Your task to perform on an android device: Open CNN.com Image 0: 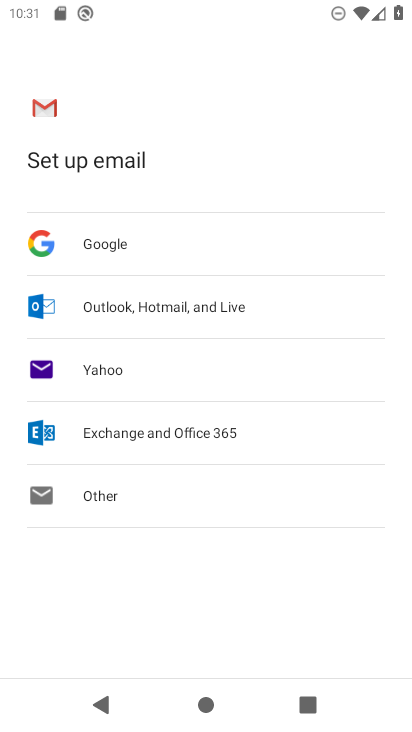
Step 0: press home button
Your task to perform on an android device: Open CNN.com Image 1: 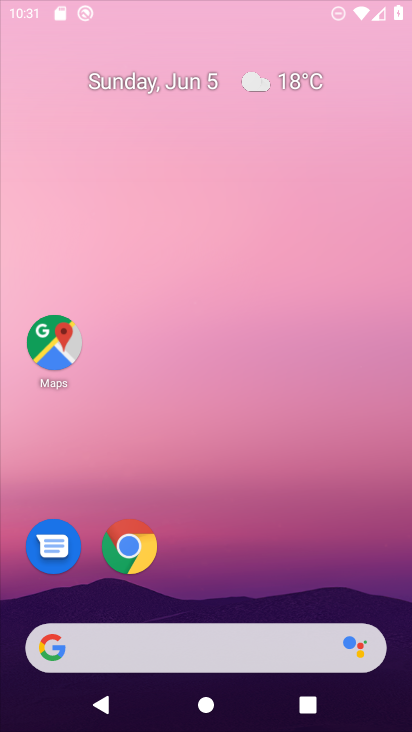
Step 1: drag from (200, 518) to (391, 37)
Your task to perform on an android device: Open CNN.com Image 2: 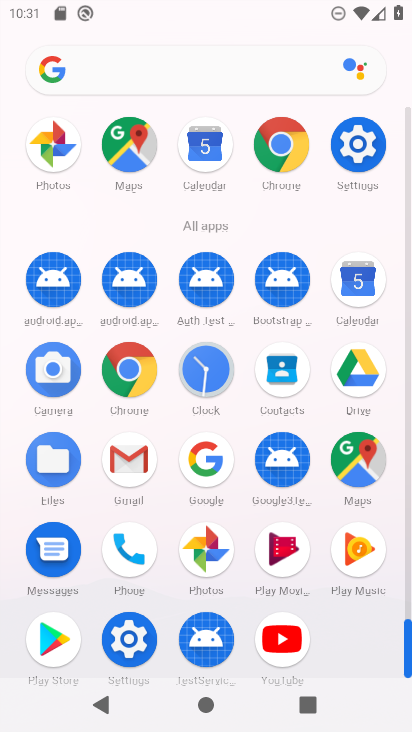
Step 2: click (147, 86)
Your task to perform on an android device: Open CNN.com Image 3: 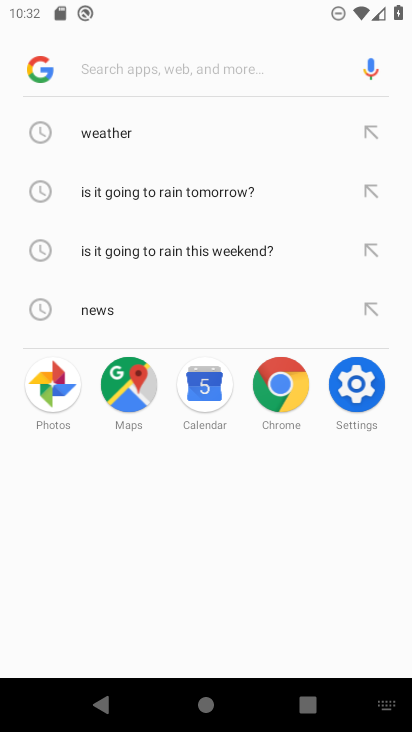
Step 3: type "CNN.com"
Your task to perform on an android device: Open CNN.com Image 4: 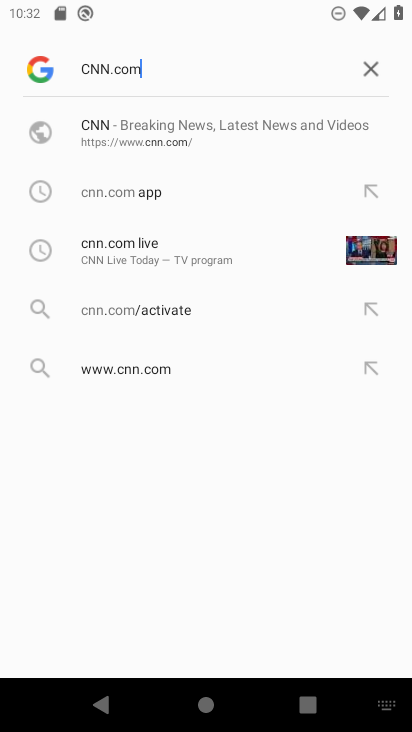
Step 4: click (96, 122)
Your task to perform on an android device: Open CNN.com Image 5: 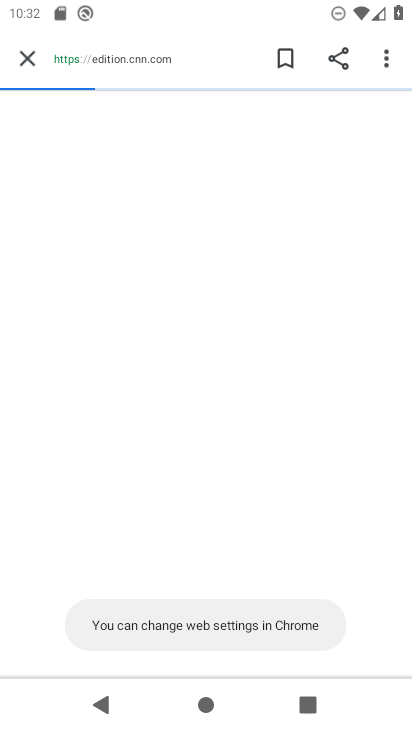
Step 5: task complete